Your task to perform on an android device: see sites visited before in the chrome app Image 0: 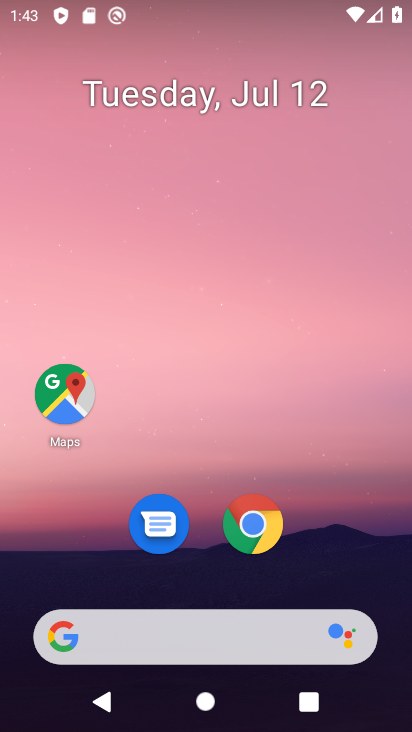
Step 0: click (262, 515)
Your task to perform on an android device: see sites visited before in the chrome app Image 1: 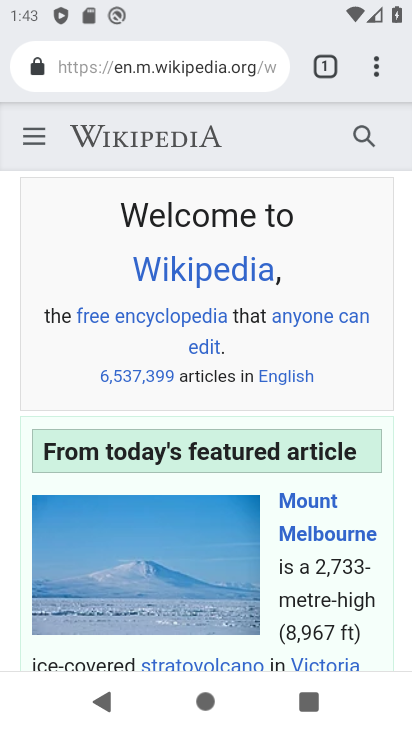
Step 1: click (375, 66)
Your task to perform on an android device: see sites visited before in the chrome app Image 2: 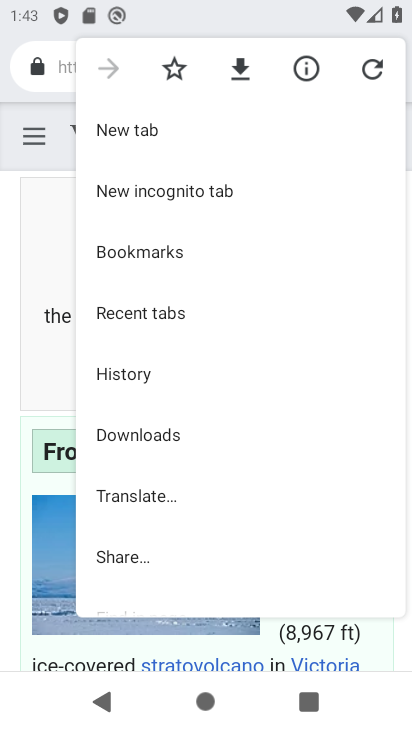
Step 2: click (168, 313)
Your task to perform on an android device: see sites visited before in the chrome app Image 3: 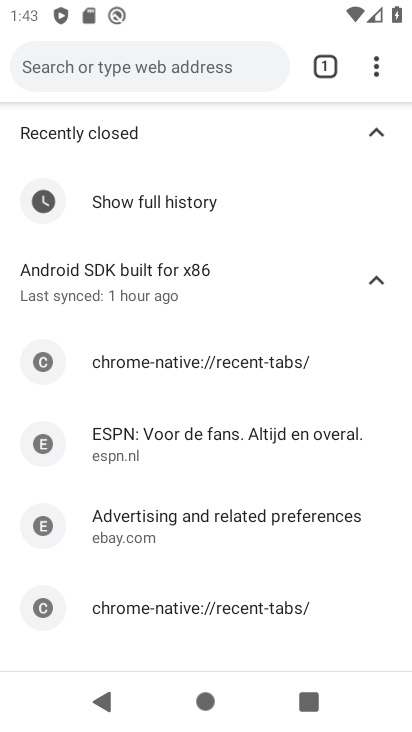
Step 3: task complete